Your task to perform on an android device: read, delete, or share a saved page in the chrome app Image 0: 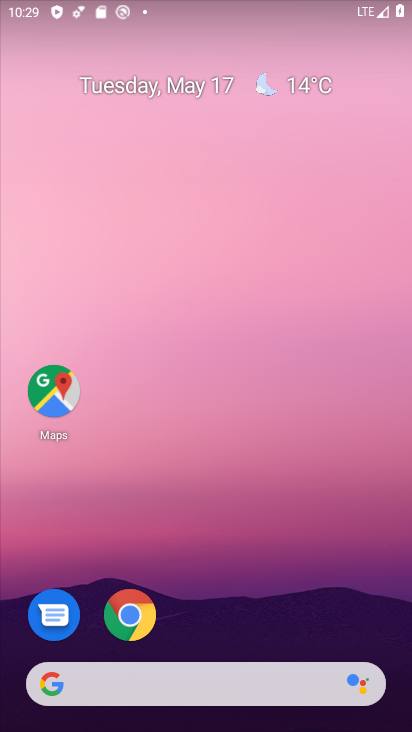
Step 0: click (122, 630)
Your task to perform on an android device: read, delete, or share a saved page in the chrome app Image 1: 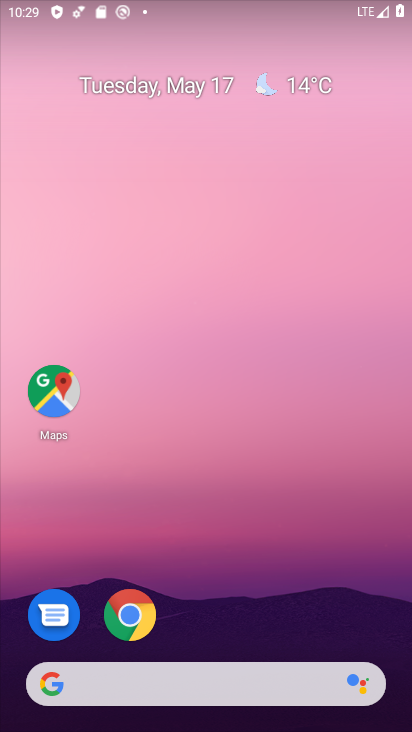
Step 1: click (144, 617)
Your task to perform on an android device: read, delete, or share a saved page in the chrome app Image 2: 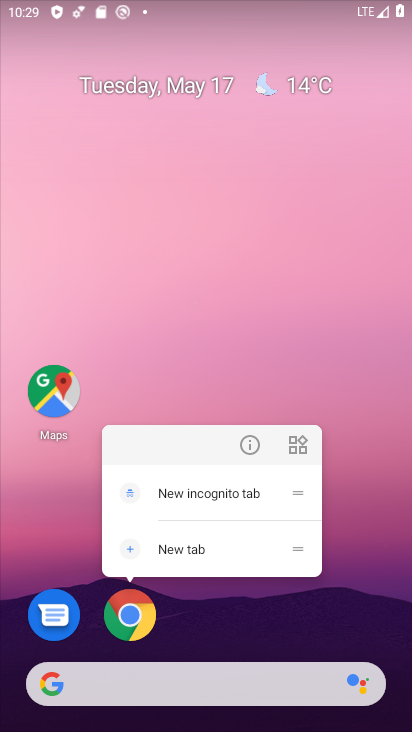
Step 2: click (134, 615)
Your task to perform on an android device: read, delete, or share a saved page in the chrome app Image 3: 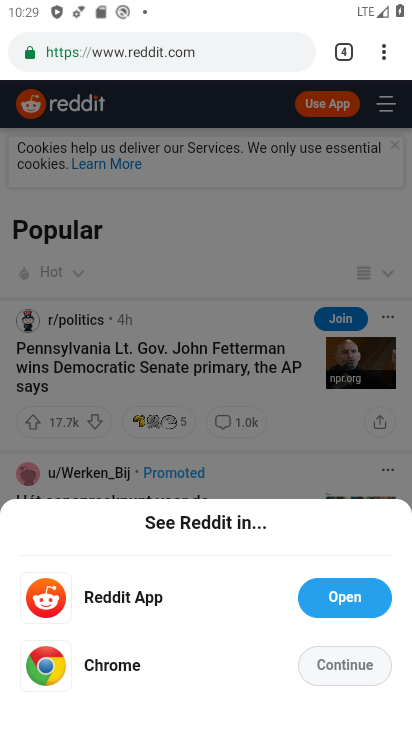
Step 3: drag from (380, 62) to (222, 335)
Your task to perform on an android device: read, delete, or share a saved page in the chrome app Image 4: 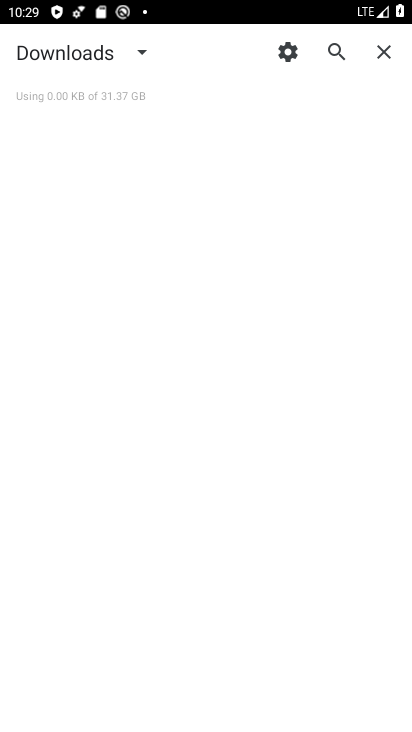
Step 4: click (142, 49)
Your task to perform on an android device: read, delete, or share a saved page in the chrome app Image 5: 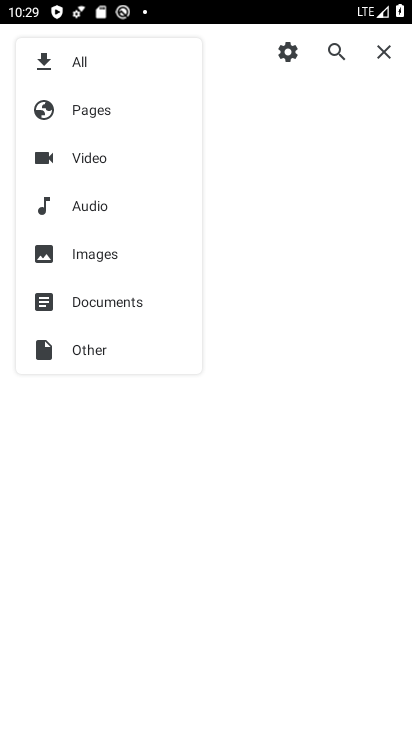
Step 5: click (99, 112)
Your task to perform on an android device: read, delete, or share a saved page in the chrome app Image 6: 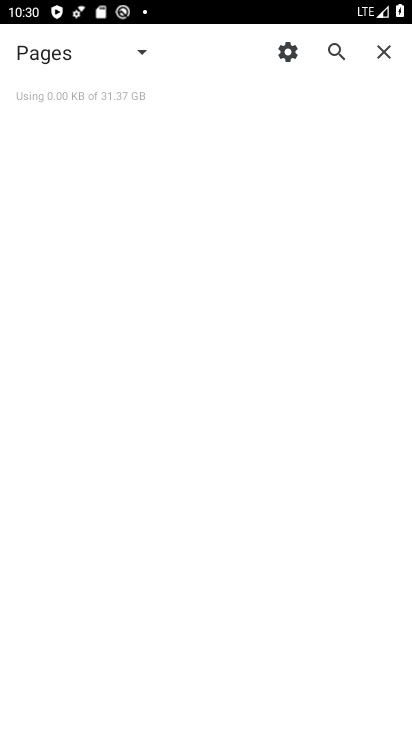
Step 6: task complete